Your task to perform on an android device: Go to display settings Image 0: 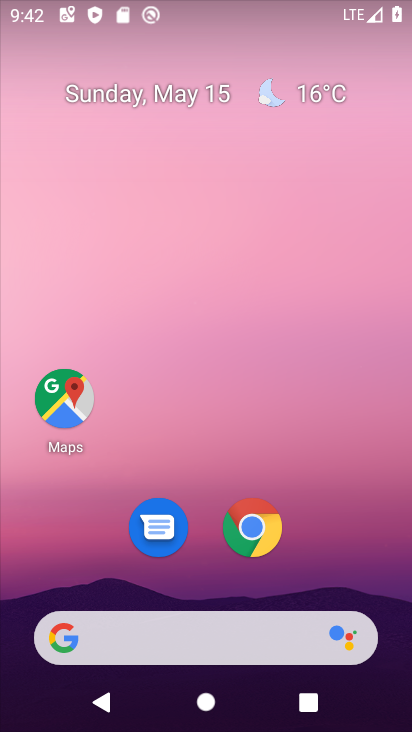
Step 0: drag from (345, 584) to (342, 36)
Your task to perform on an android device: Go to display settings Image 1: 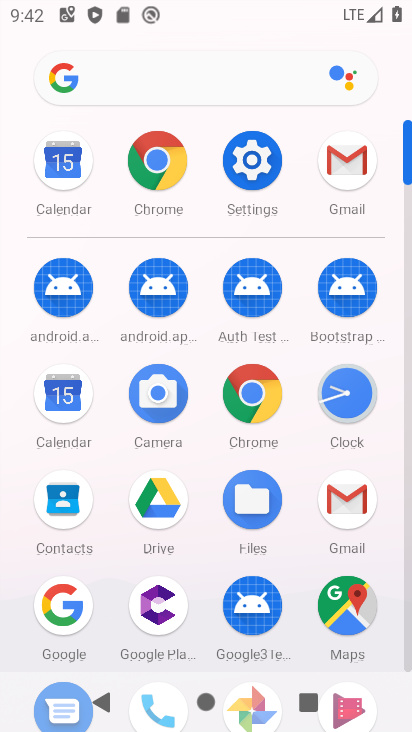
Step 1: click (254, 165)
Your task to perform on an android device: Go to display settings Image 2: 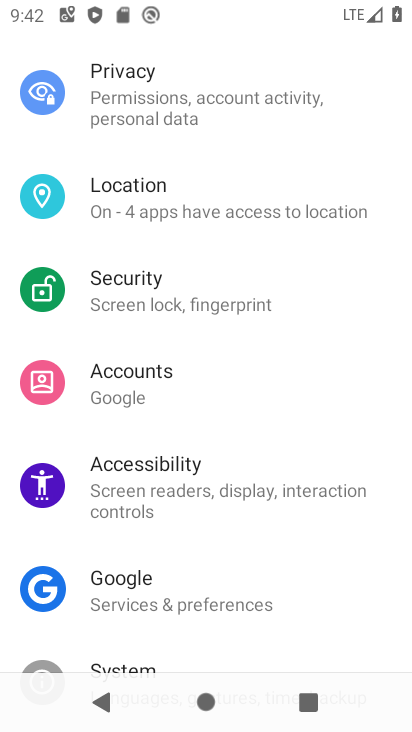
Step 2: drag from (329, 343) to (297, 528)
Your task to perform on an android device: Go to display settings Image 3: 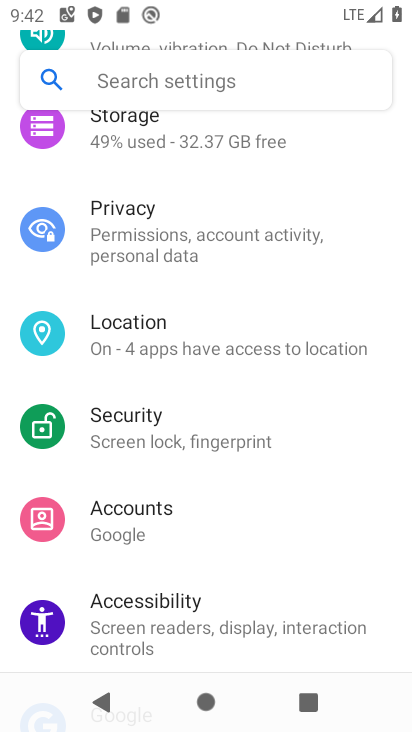
Step 3: drag from (324, 218) to (234, 593)
Your task to perform on an android device: Go to display settings Image 4: 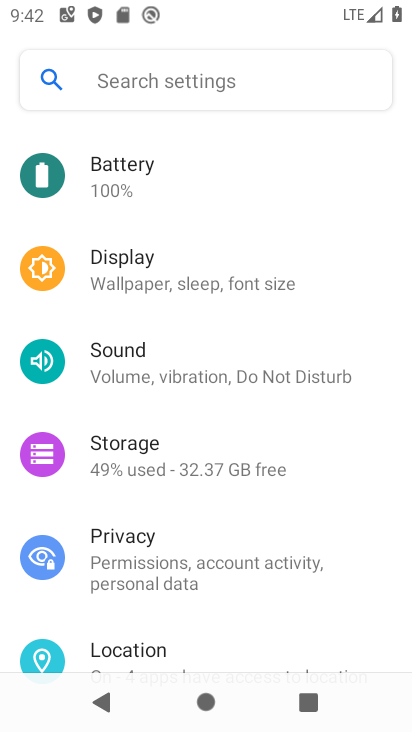
Step 4: click (131, 279)
Your task to perform on an android device: Go to display settings Image 5: 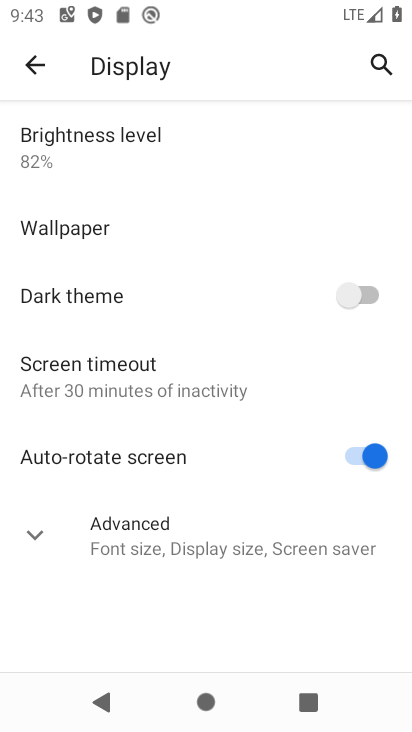
Step 5: task complete